Your task to perform on an android device: open a bookmark in the chrome app Image 0: 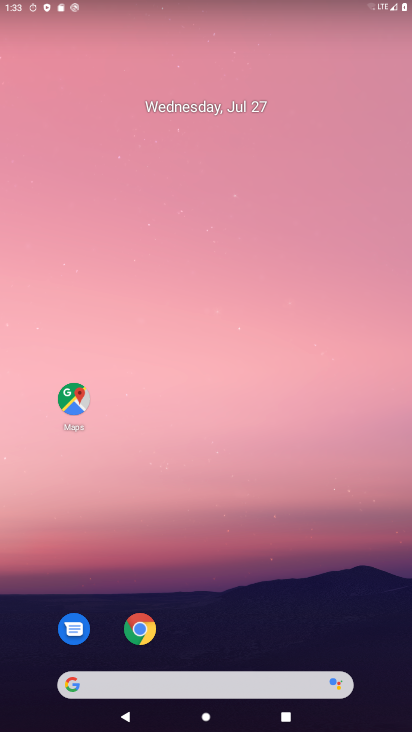
Step 0: press home button
Your task to perform on an android device: open a bookmark in the chrome app Image 1: 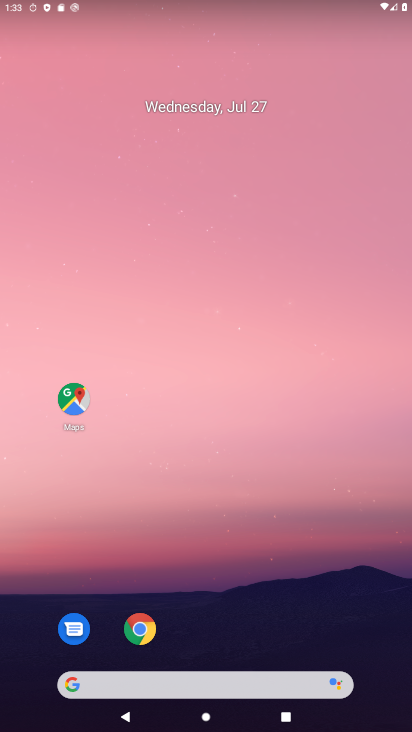
Step 1: drag from (236, 655) to (248, 266)
Your task to perform on an android device: open a bookmark in the chrome app Image 2: 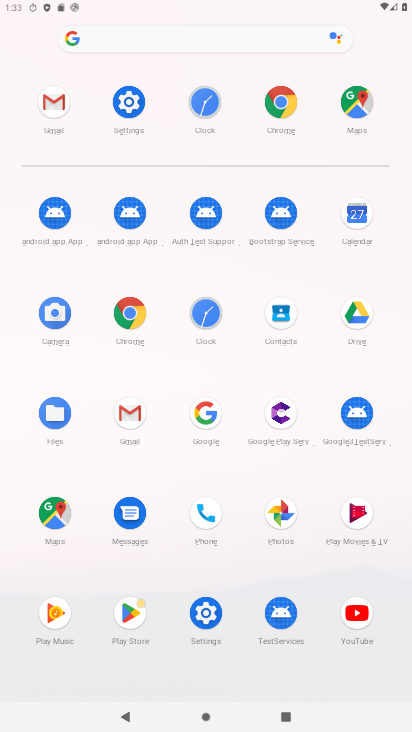
Step 2: click (284, 95)
Your task to perform on an android device: open a bookmark in the chrome app Image 3: 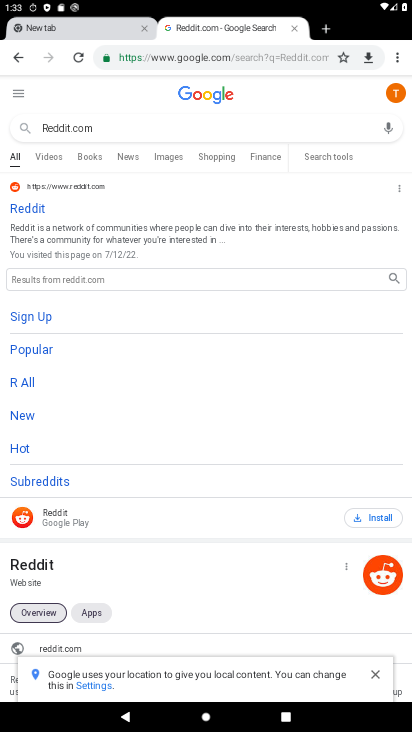
Step 3: drag from (404, 62) to (285, 124)
Your task to perform on an android device: open a bookmark in the chrome app Image 4: 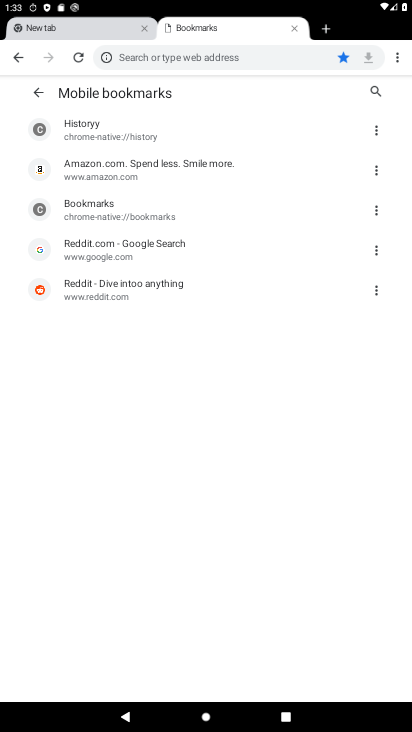
Step 4: click (103, 165)
Your task to perform on an android device: open a bookmark in the chrome app Image 5: 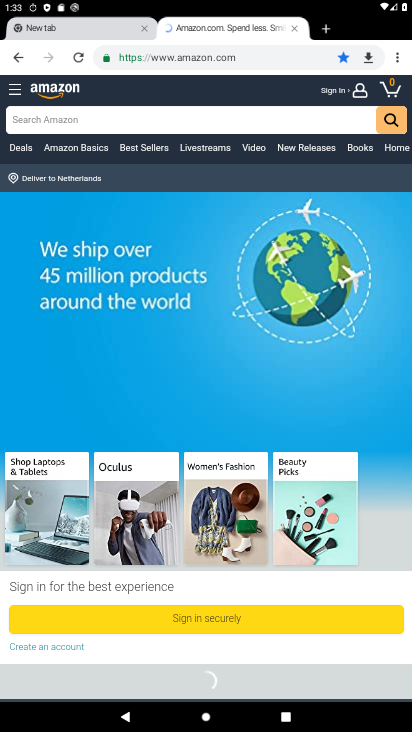
Step 5: task complete